Your task to perform on an android device: toggle translation in the chrome app Image 0: 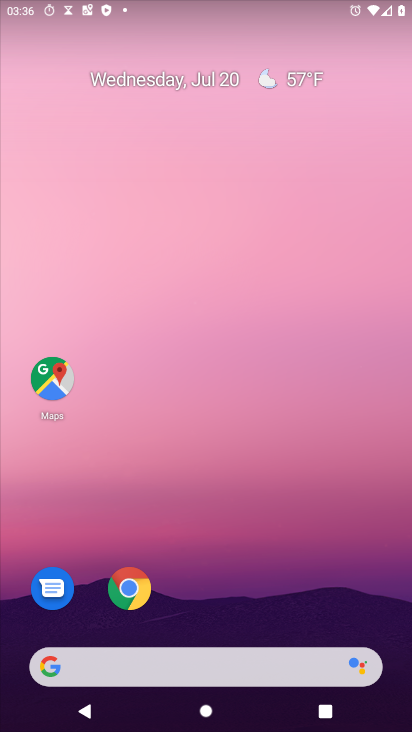
Step 0: drag from (314, 678) to (315, 20)
Your task to perform on an android device: toggle translation in the chrome app Image 1: 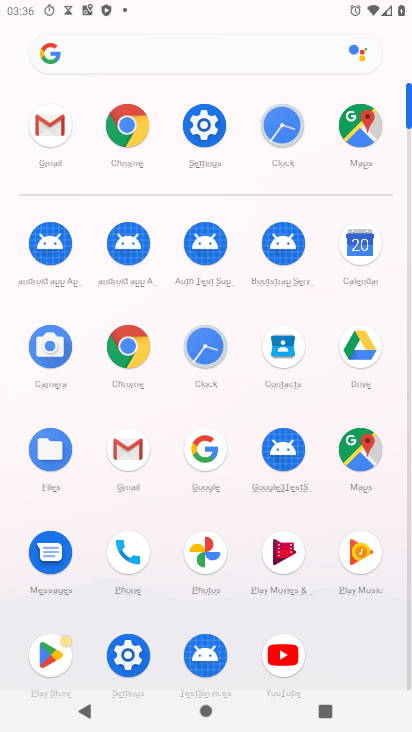
Step 1: click (139, 341)
Your task to perform on an android device: toggle translation in the chrome app Image 2: 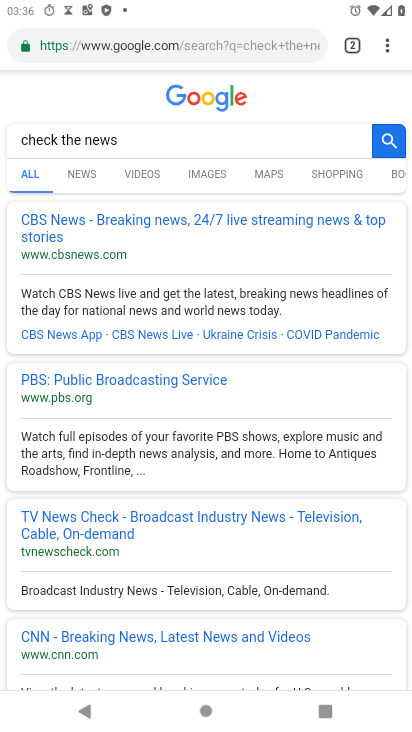
Step 2: drag from (386, 50) to (289, 520)
Your task to perform on an android device: toggle translation in the chrome app Image 3: 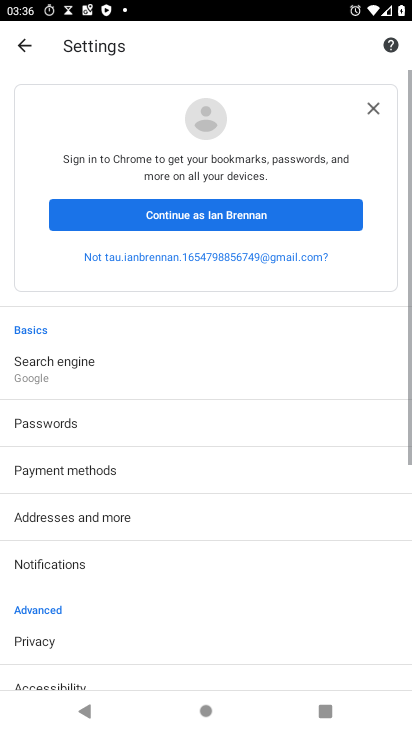
Step 3: drag from (166, 625) to (169, 35)
Your task to perform on an android device: toggle translation in the chrome app Image 4: 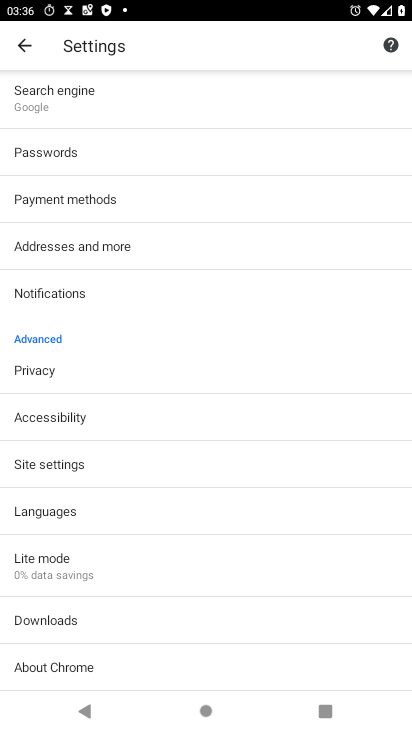
Step 4: click (80, 508)
Your task to perform on an android device: toggle translation in the chrome app Image 5: 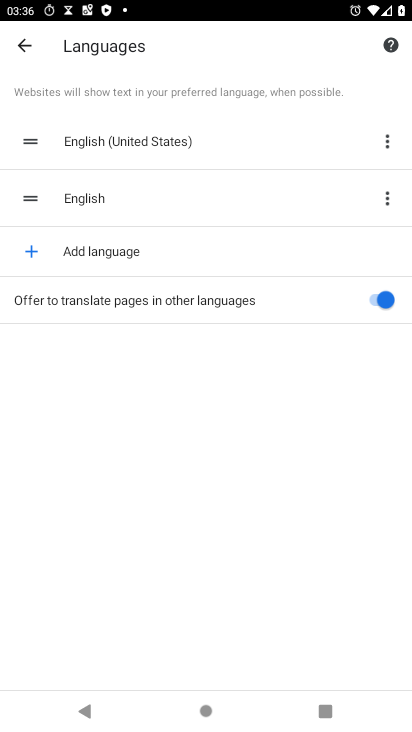
Step 5: task complete